Your task to perform on an android device: clear history in the chrome app Image 0: 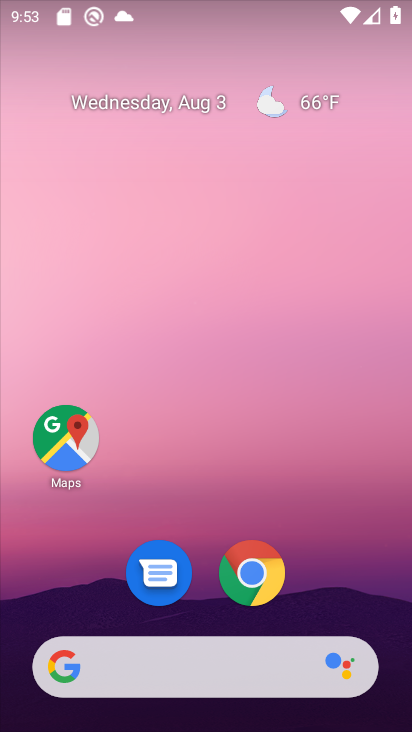
Step 0: click (236, 584)
Your task to perform on an android device: clear history in the chrome app Image 1: 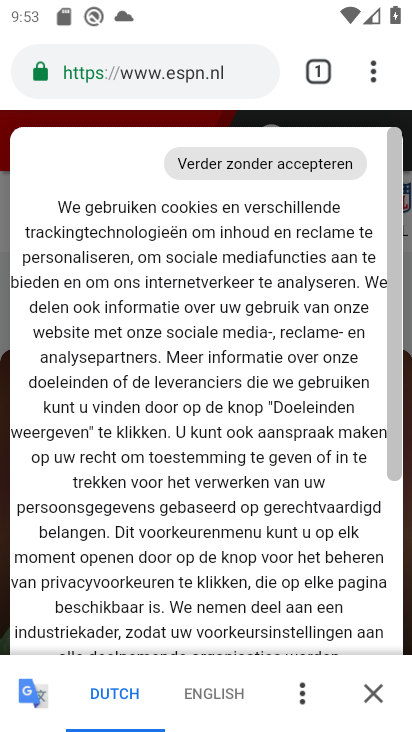
Step 1: drag from (373, 69) to (154, 412)
Your task to perform on an android device: clear history in the chrome app Image 2: 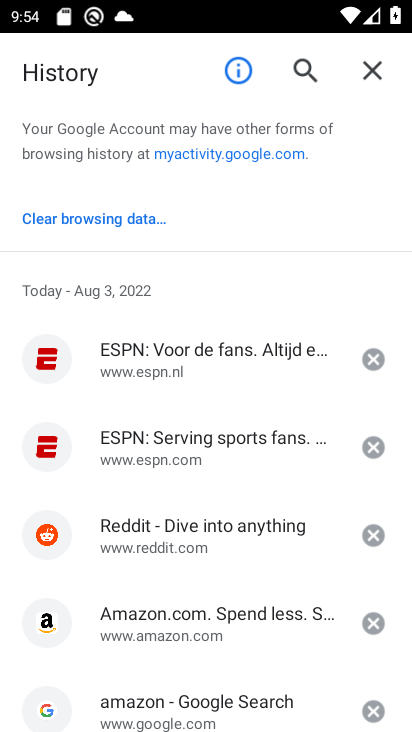
Step 2: click (113, 223)
Your task to perform on an android device: clear history in the chrome app Image 3: 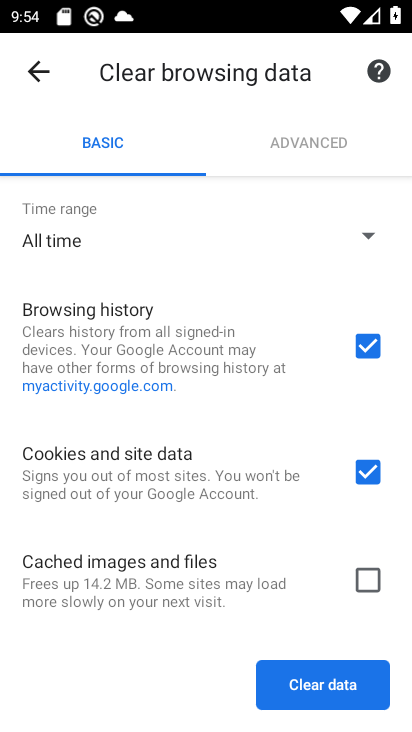
Step 3: click (304, 690)
Your task to perform on an android device: clear history in the chrome app Image 4: 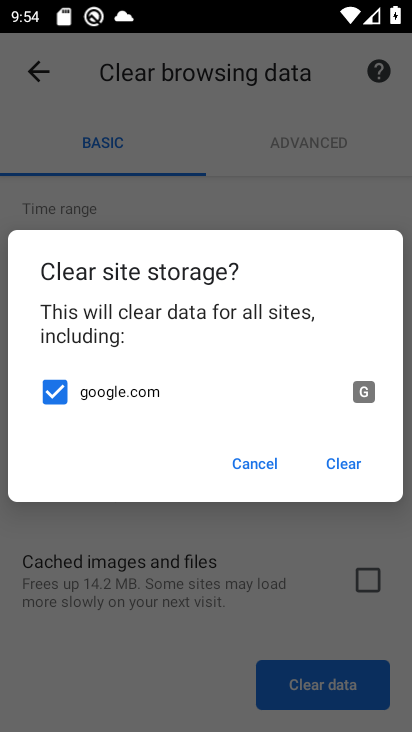
Step 4: click (347, 464)
Your task to perform on an android device: clear history in the chrome app Image 5: 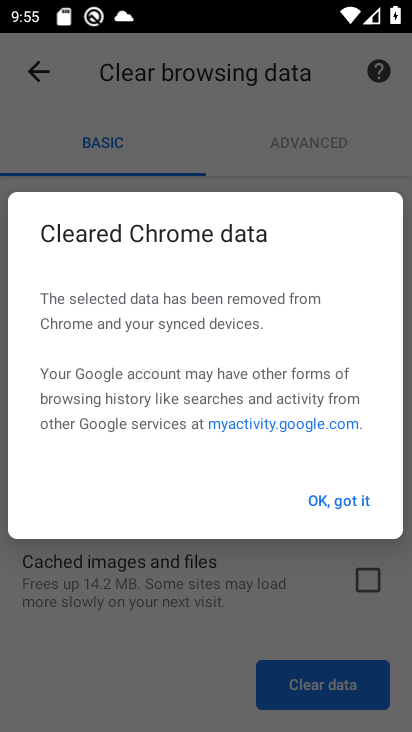
Step 5: click (326, 491)
Your task to perform on an android device: clear history in the chrome app Image 6: 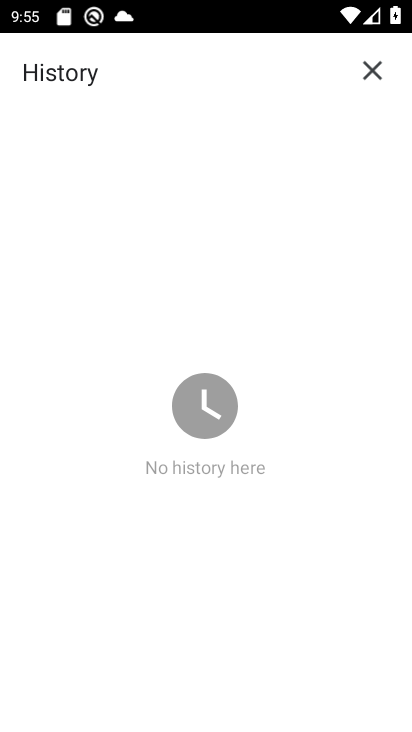
Step 6: task complete